Your task to perform on an android device: Show me recent news Image 0: 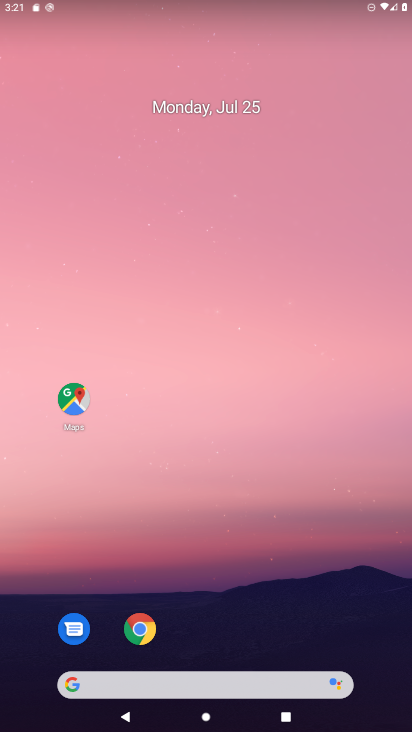
Step 0: click (174, 680)
Your task to perform on an android device: Show me recent news Image 1: 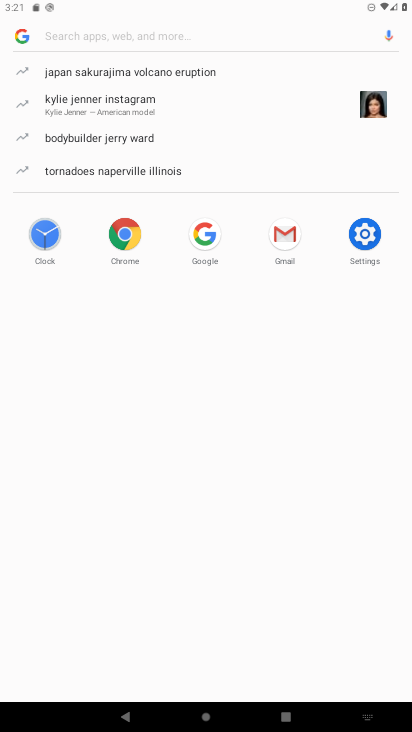
Step 1: type "recent news"
Your task to perform on an android device: Show me recent news Image 2: 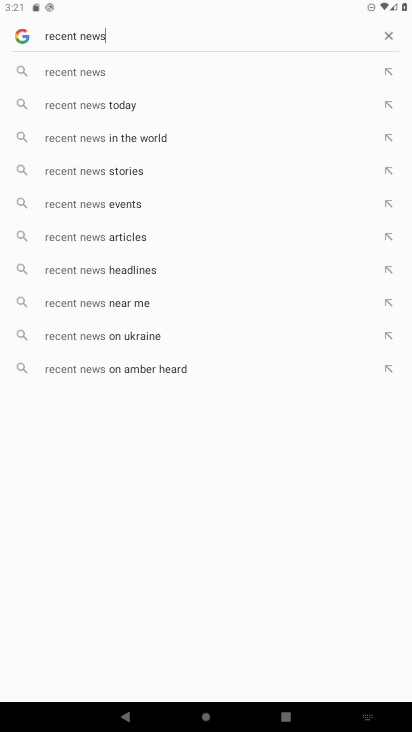
Step 2: click (119, 69)
Your task to perform on an android device: Show me recent news Image 3: 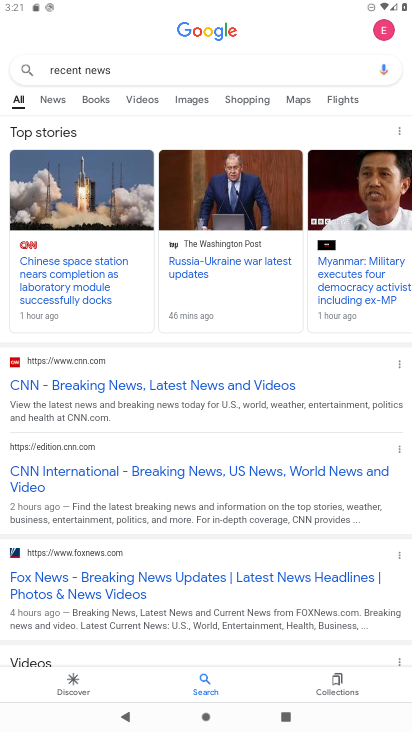
Step 3: click (48, 99)
Your task to perform on an android device: Show me recent news Image 4: 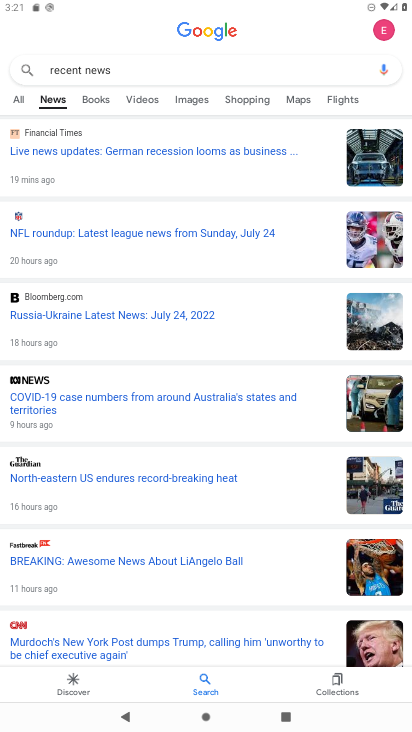
Step 4: task complete